Your task to perform on an android device: Open internet settings Image 0: 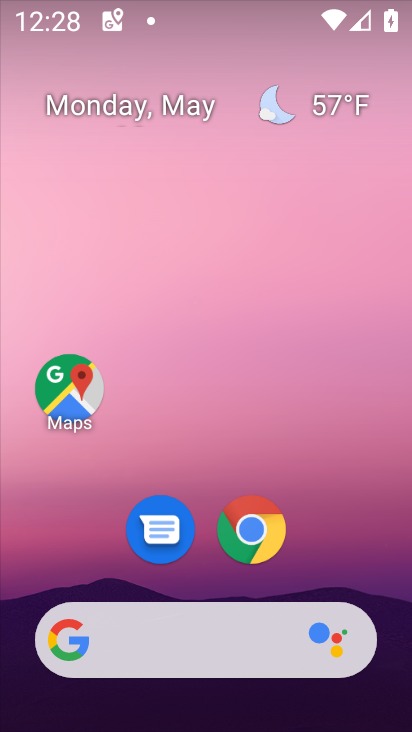
Step 0: drag from (365, 530) to (316, 108)
Your task to perform on an android device: Open internet settings Image 1: 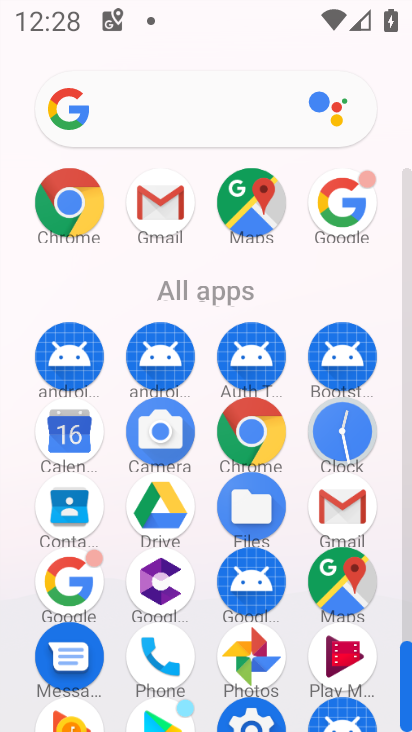
Step 1: drag from (198, 621) to (232, 263)
Your task to perform on an android device: Open internet settings Image 2: 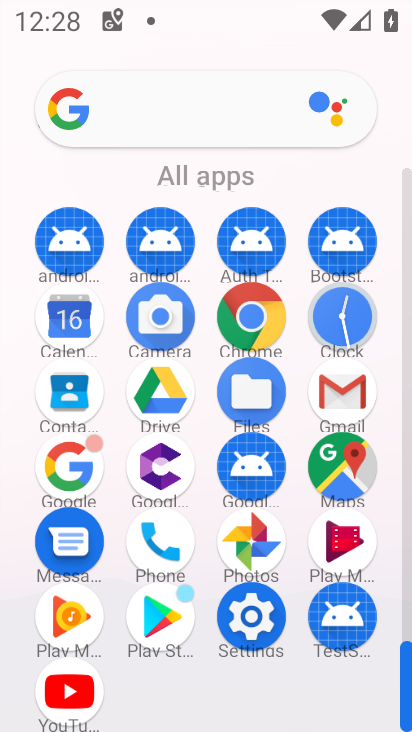
Step 2: click (251, 617)
Your task to perform on an android device: Open internet settings Image 3: 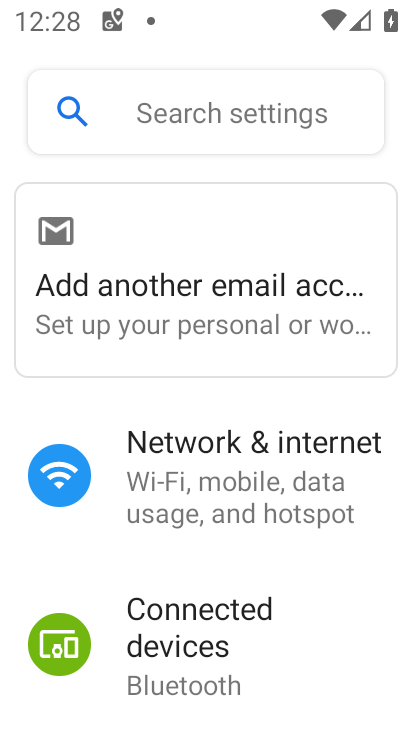
Step 3: drag from (223, 544) to (308, 411)
Your task to perform on an android device: Open internet settings Image 4: 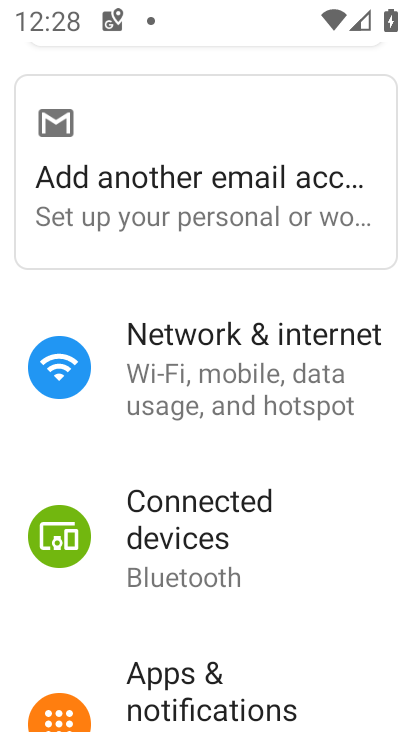
Step 4: drag from (211, 613) to (303, 463)
Your task to perform on an android device: Open internet settings Image 5: 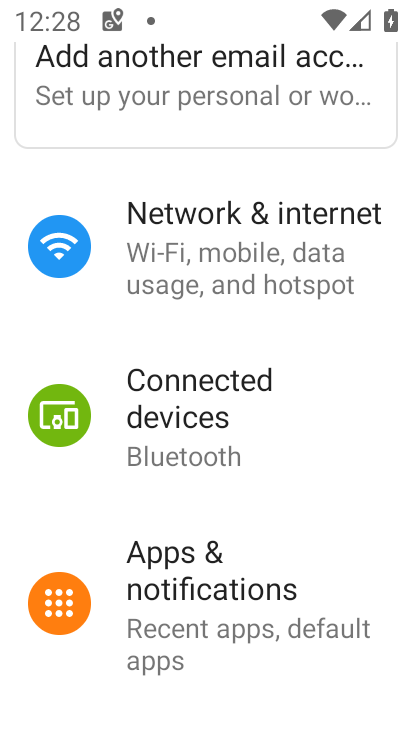
Step 5: click (329, 211)
Your task to perform on an android device: Open internet settings Image 6: 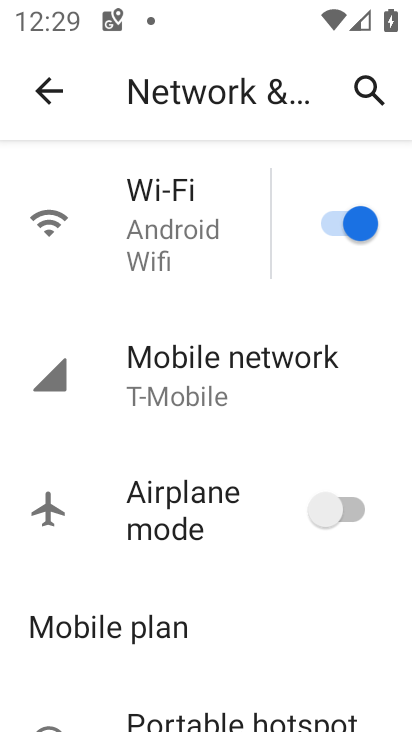
Step 6: click (162, 200)
Your task to perform on an android device: Open internet settings Image 7: 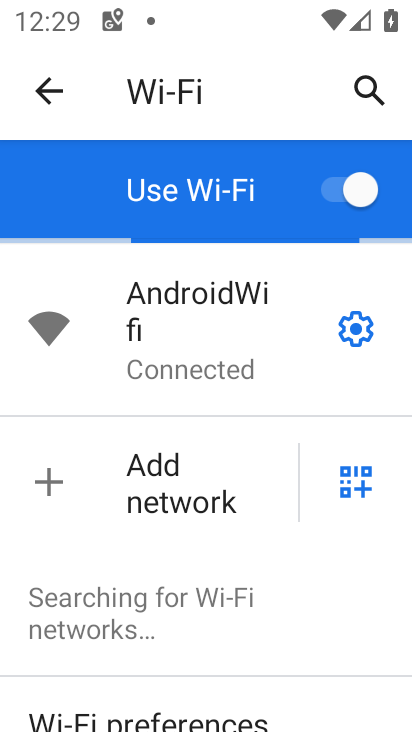
Step 7: click (348, 331)
Your task to perform on an android device: Open internet settings Image 8: 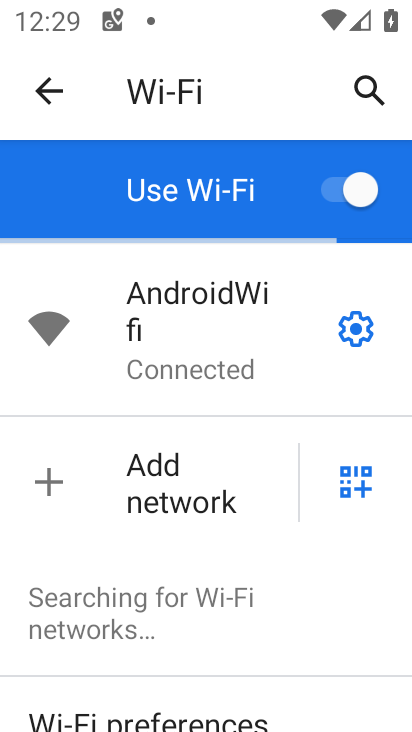
Step 8: click (357, 327)
Your task to perform on an android device: Open internet settings Image 9: 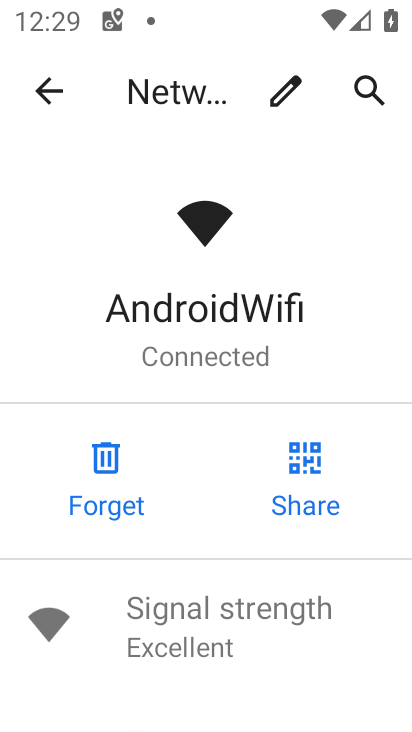
Step 9: task complete